Your task to perform on an android device: delete the emails in spam in the gmail app Image 0: 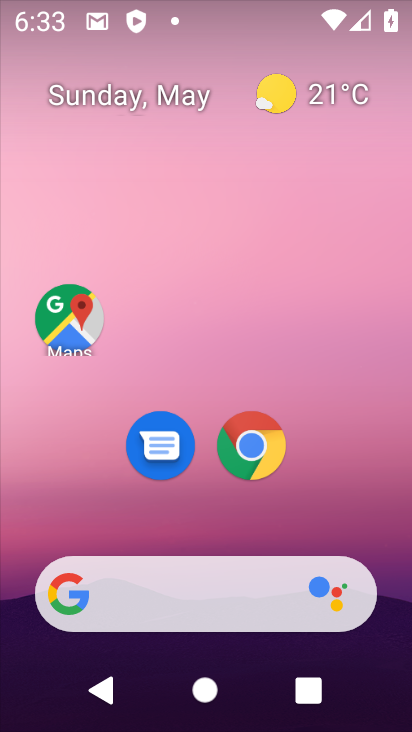
Step 0: drag from (323, 497) to (177, 24)
Your task to perform on an android device: delete the emails in spam in the gmail app Image 1: 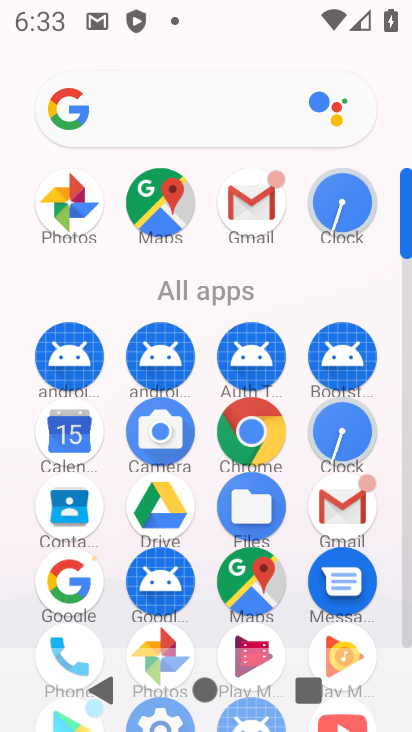
Step 1: click (252, 203)
Your task to perform on an android device: delete the emails in spam in the gmail app Image 2: 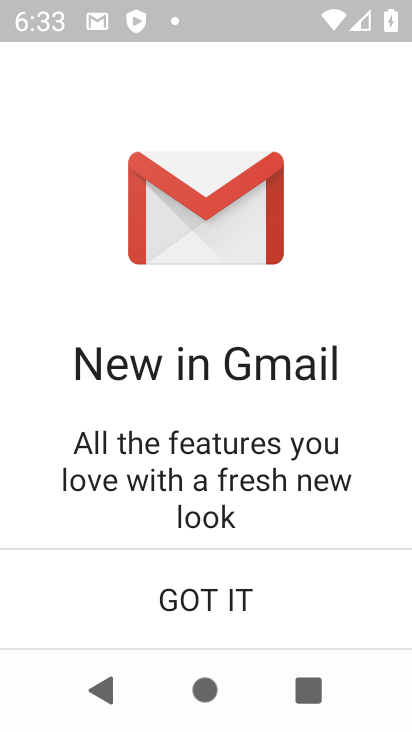
Step 2: click (200, 592)
Your task to perform on an android device: delete the emails in spam in the gmail app Image 3: 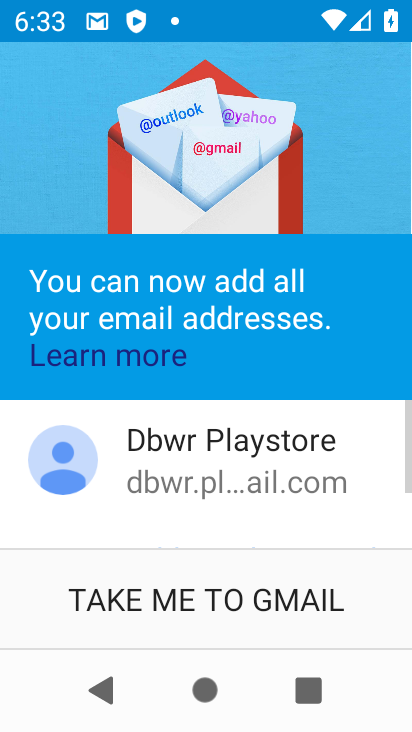
Step 3: click (226, 595)
Your task to perform on an android device: delete the emails in spam in the gmail app Image 4: 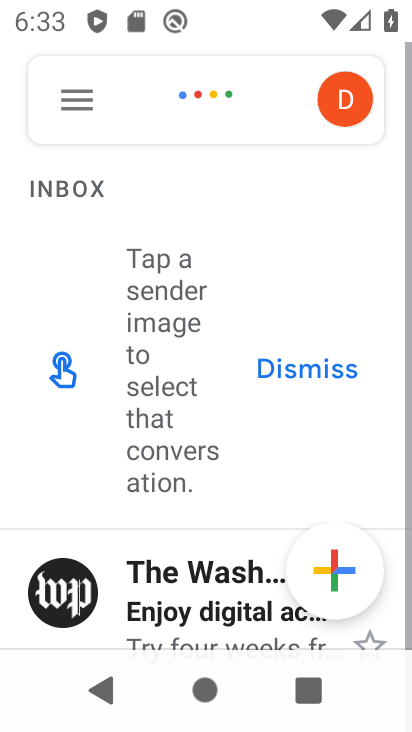
Step 4: click (75, 103)
Your task to perform on an android device: delete the emails in spam in the gmail app Image 5: 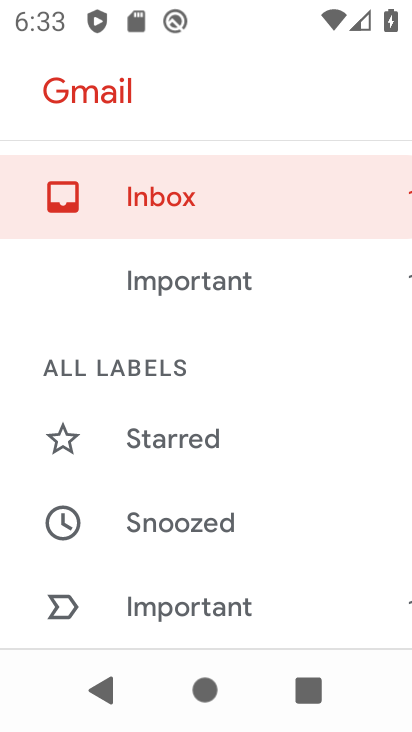
Step 5: drag from (265, 539) to (162, 176)
Your task to perform on an android device: delete the emails in spam in the gmail app Image 6: 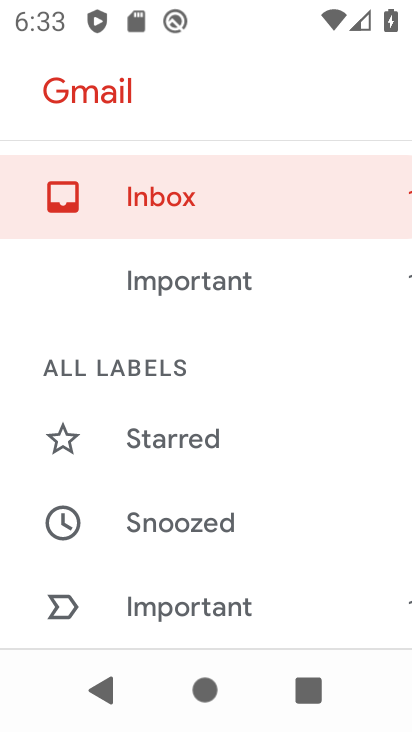
Step 6: drag from (161, 499) to (162, 232)
Your task to perform on an android device: delete the emails in spam in the gmail app Image 7: 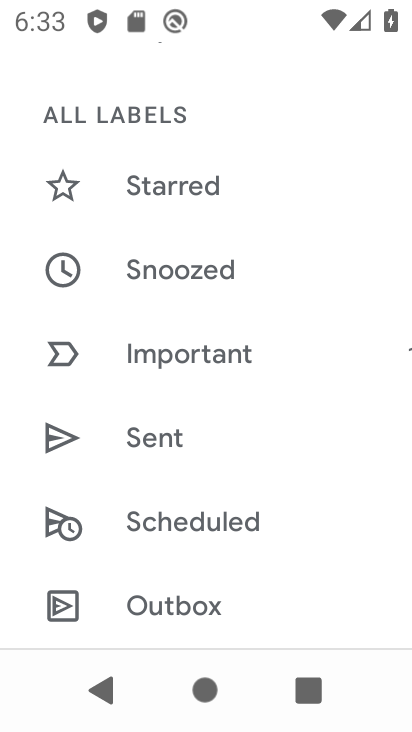
Step 7: drag from (169, 547) to (181, 273)
Your task to perform on an android device: delete the emails in spam in the gmail app Image 8: 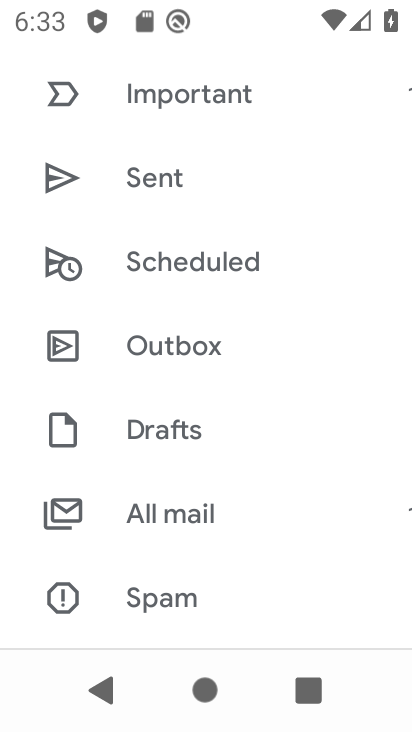
Step 8: click (171, 596)
Your task to perform on an android device: delete the emails in spam in the gmail app Image 9: 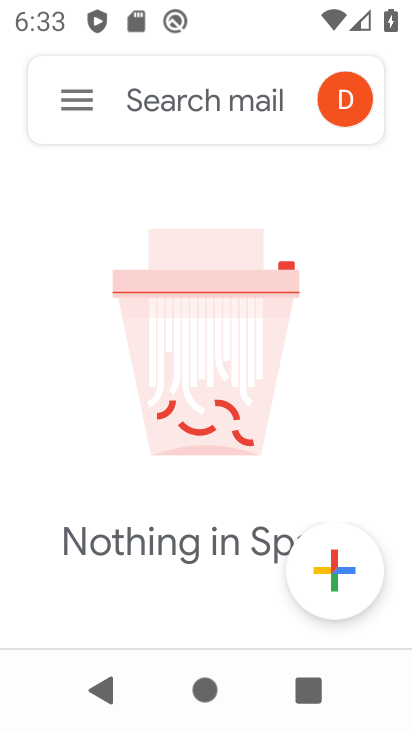
Step 9: task complete